Your task to perform on an android device: check data usage Image 0: 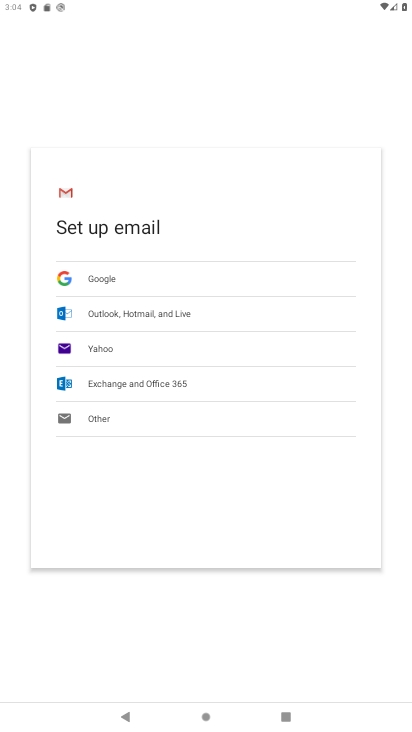
Step 0: press home button
Your task to perform on an android device: check data usage Image 1: 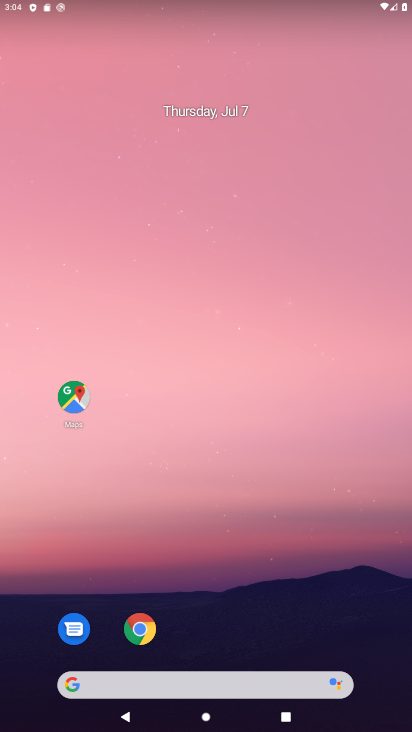
Step 1: drag from (21, 710) to (205, 74)
Your task to perform on an android device: check data usage Image 2: 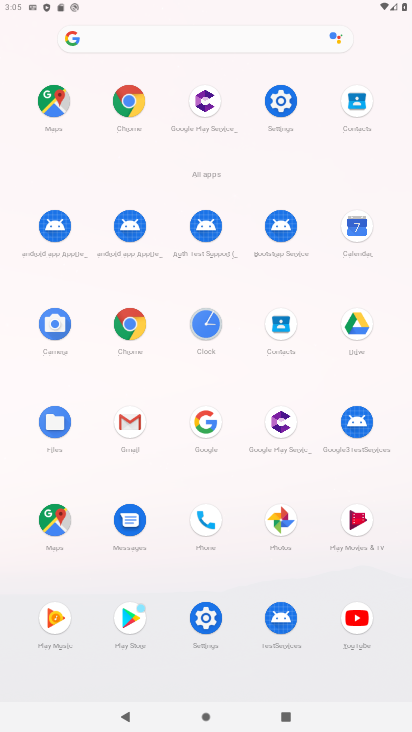
Step 2: click (198, 619)
Your task to perform on an android device: check data usage Image 3: 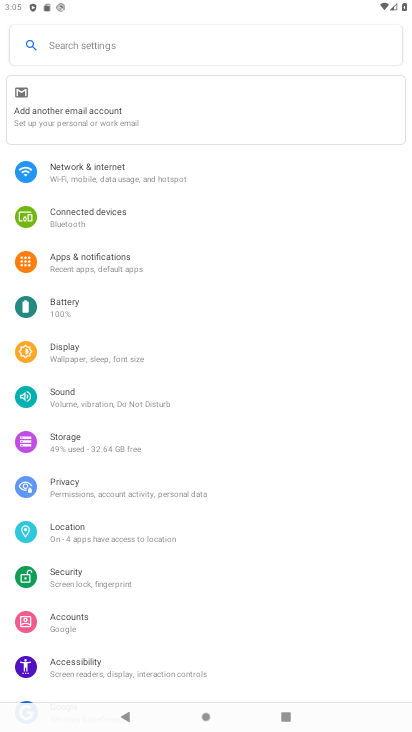
Step 3: click (111, 179)
Your task to perform on an android device: check data usage Image 4: 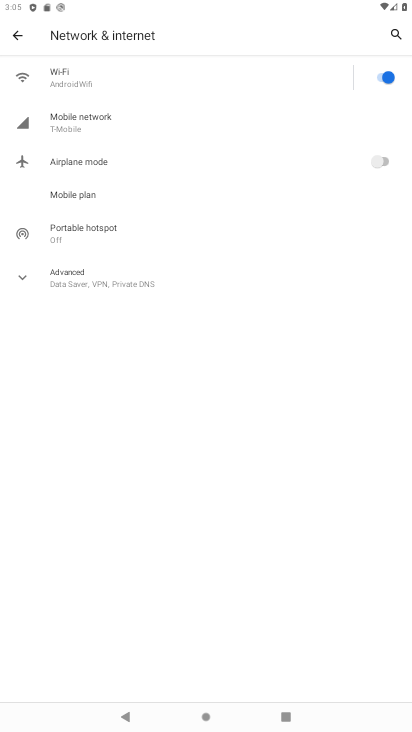
Step 4: click (80, 123)
Your task to perform on an android device: check data usage Image 5: 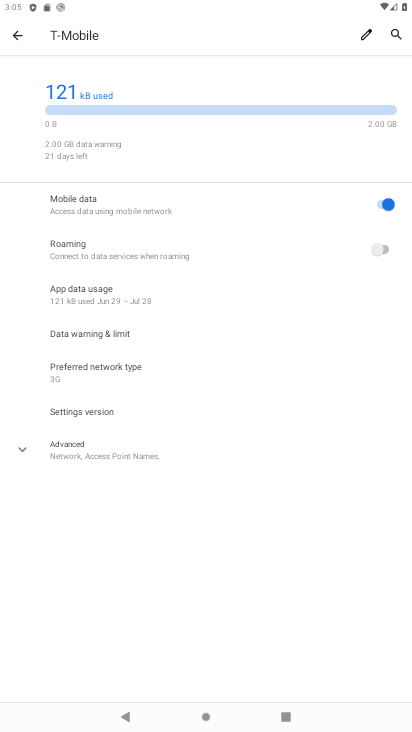
Step 5: click (69, 447)
Your task to perform on an android device: check data usage Image 6: 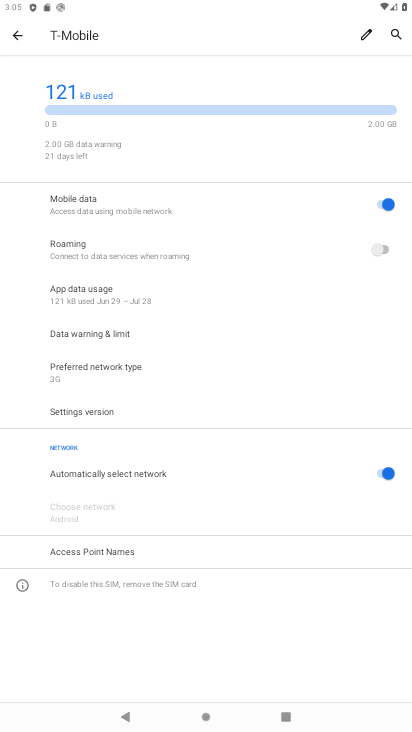
Step 6: task complete